Your task to perform on an android device: allow notifications from all sites in the chrome app Image 0: 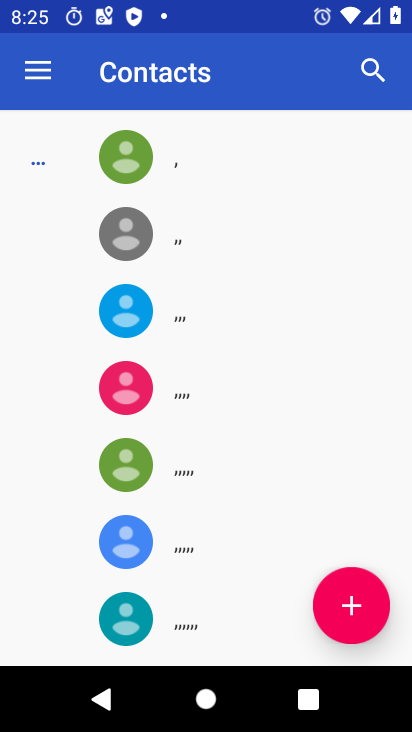
Step 0: press home button
Your task to perform on an android device: allow notifications from all sites in the chrome app Image 1: 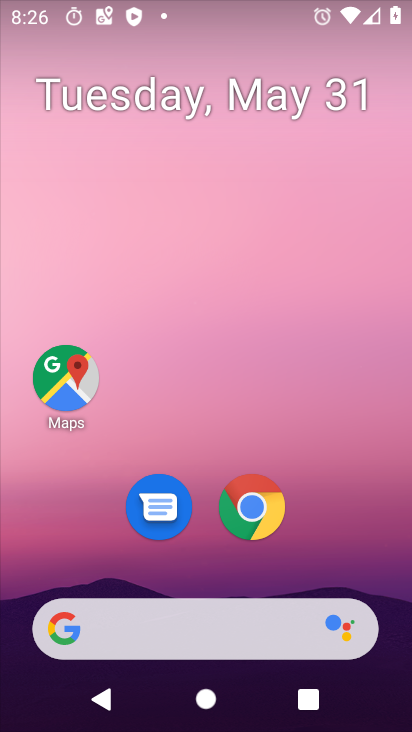
Step 1: click (256, 511)
Your task to perform on an android device: allow notifications from all sites in the chrome app Image 2: 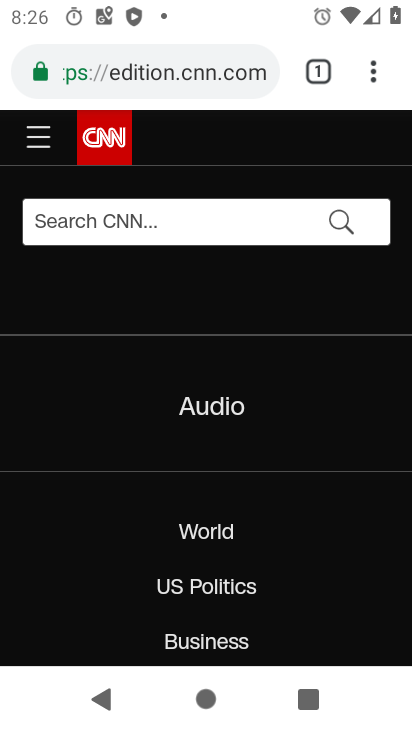
Step 2: click (372, 70)
Your task to perform on an android device: allow notifications from all sites in the chrome app Image 3: 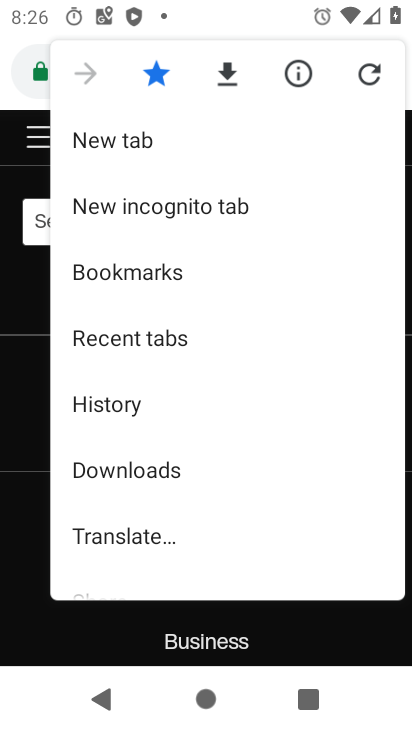
Step 3: drag from (234, 511) to (224, 146)
Your task to perform on an android device: allow notifications from all sites in the chrome app Image 4: 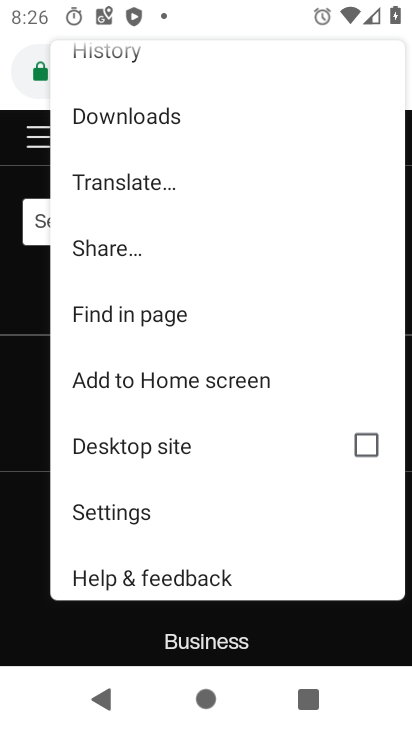
Step 4: drag from (236, 463) to (229, 161)
Your task to perform on an android device: allow notifications from all sites in the chrome app Image 5: 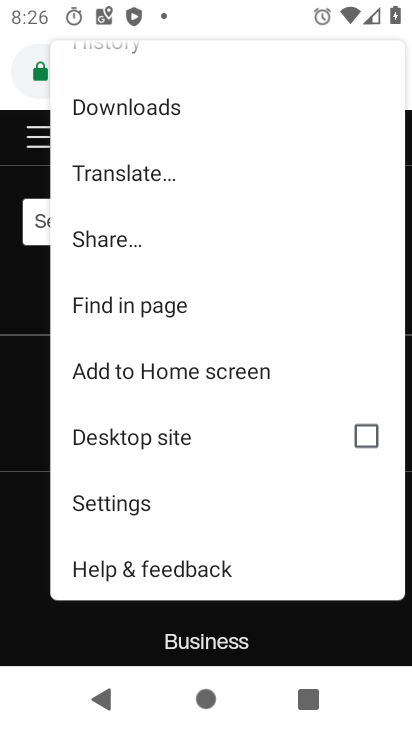
Step 5: click (113, 508)
Your task to perform on an android device: allow notifications from all sites in the chrome app Image 6: 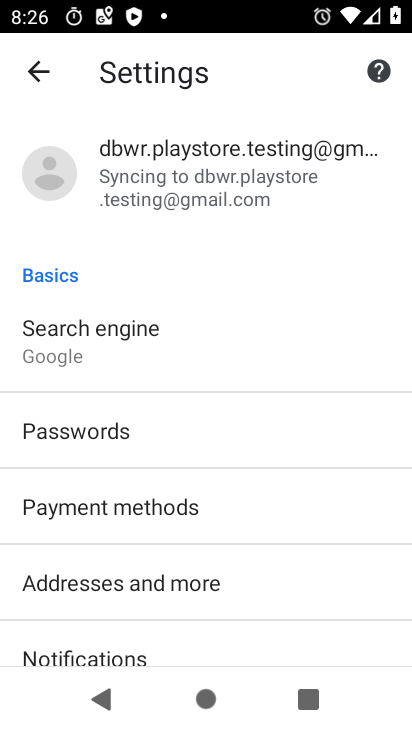
Step 6: drag from (201, 545) to (197, 277)
Your task to perform on an android device: allow notifications from all sites in the chrome app Image 7: 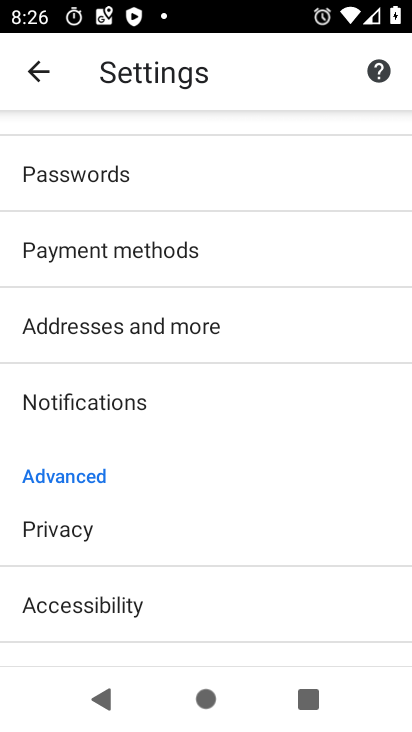
Step 7: click (142, 398)
Your task to perform on an android device: allow notifications from all sites in the chrome app Image 8: 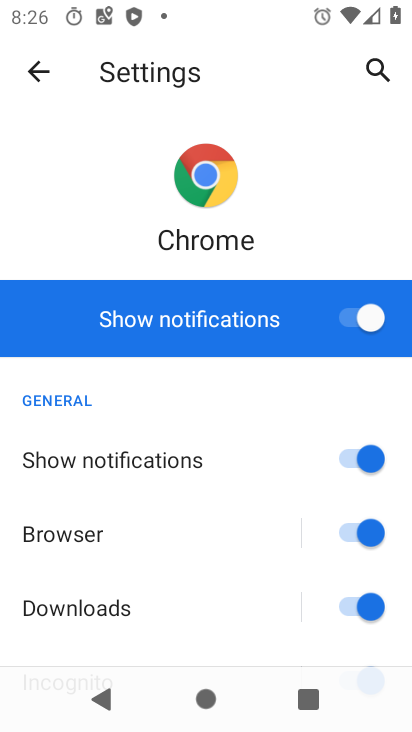
Step 8: task complete